Your task to perform on an android device: Search for flights from San Diego to Seattle Image 0: 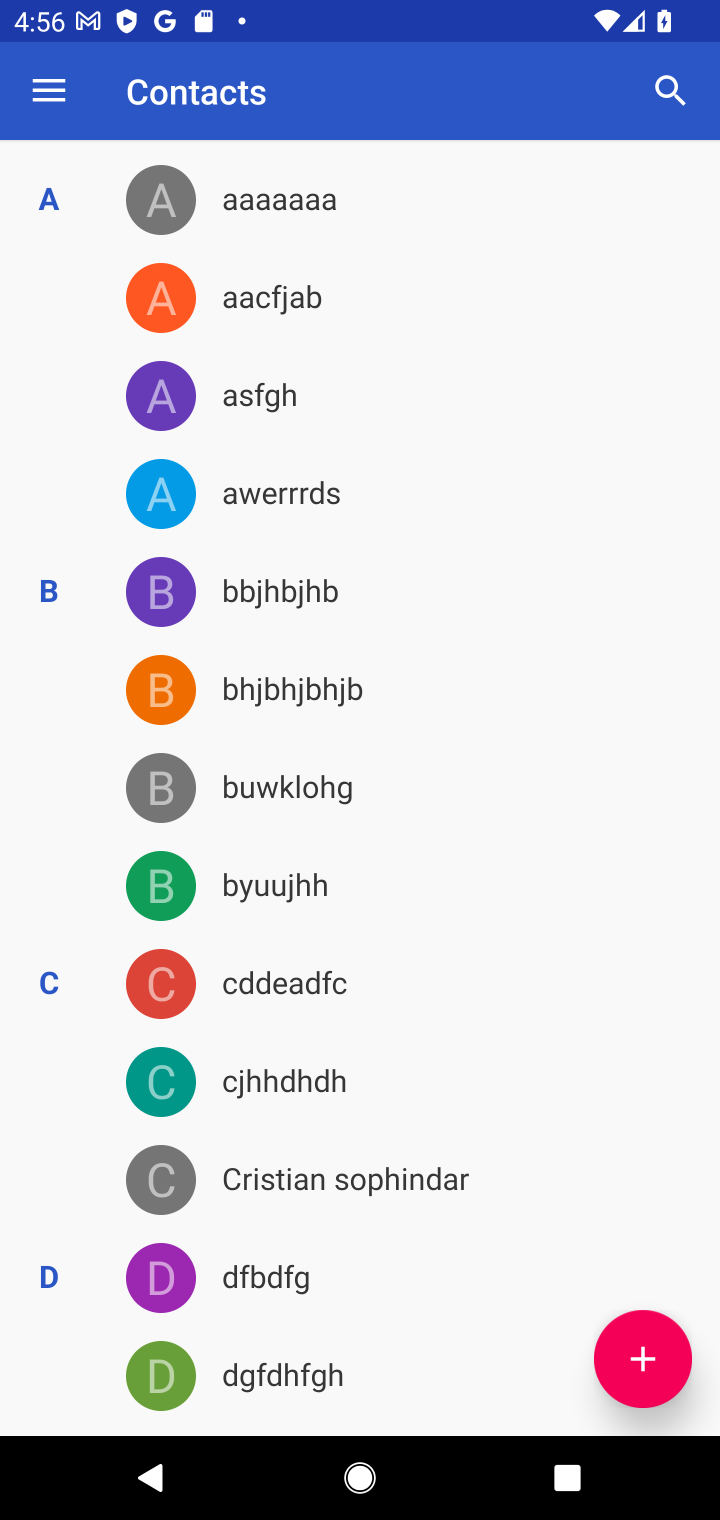
Step 0: press home button
Your task to perform on an android device: Search for flights from San Diego to Seattle Image 1: 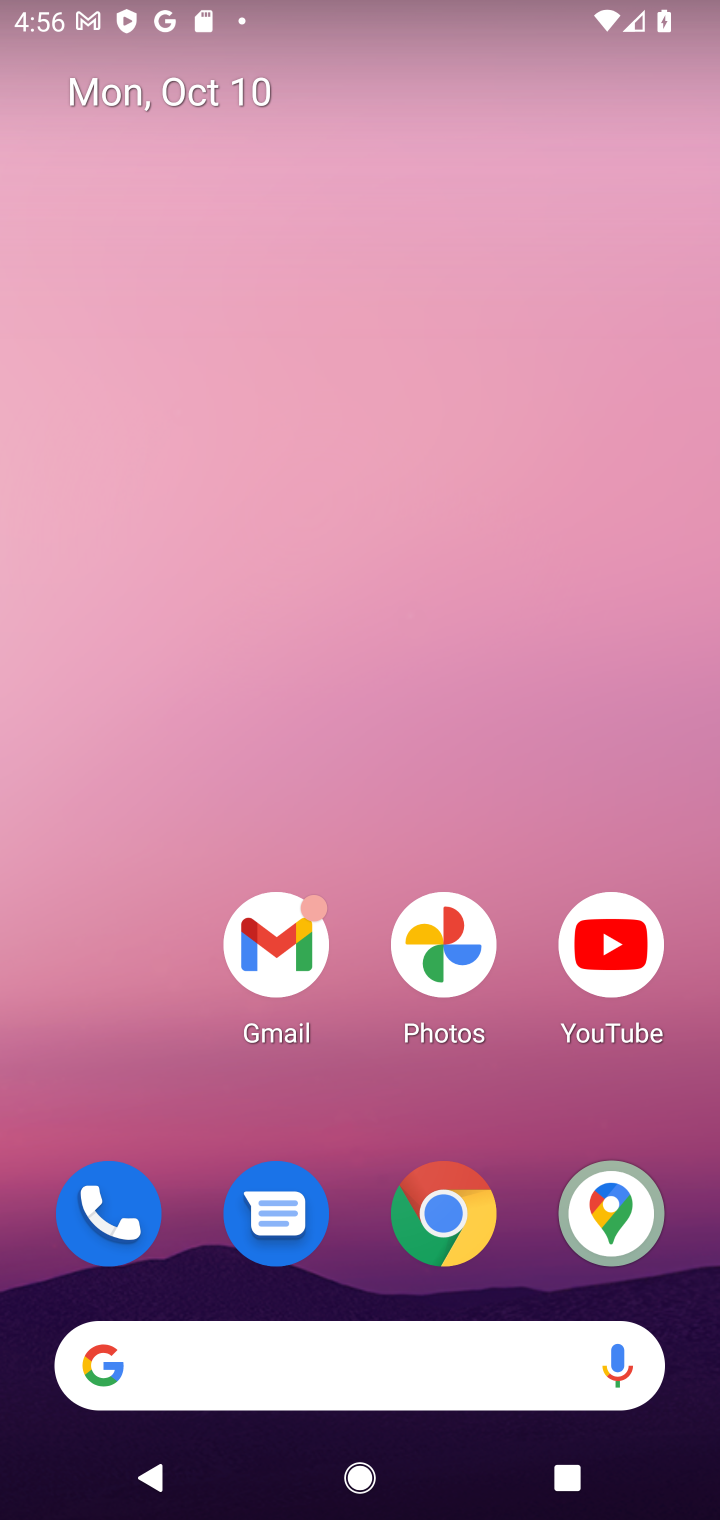
Step 1: click (308, 1374)
Your task to perform on an android device: Search for flights from San Diego to Seattle Image 2: 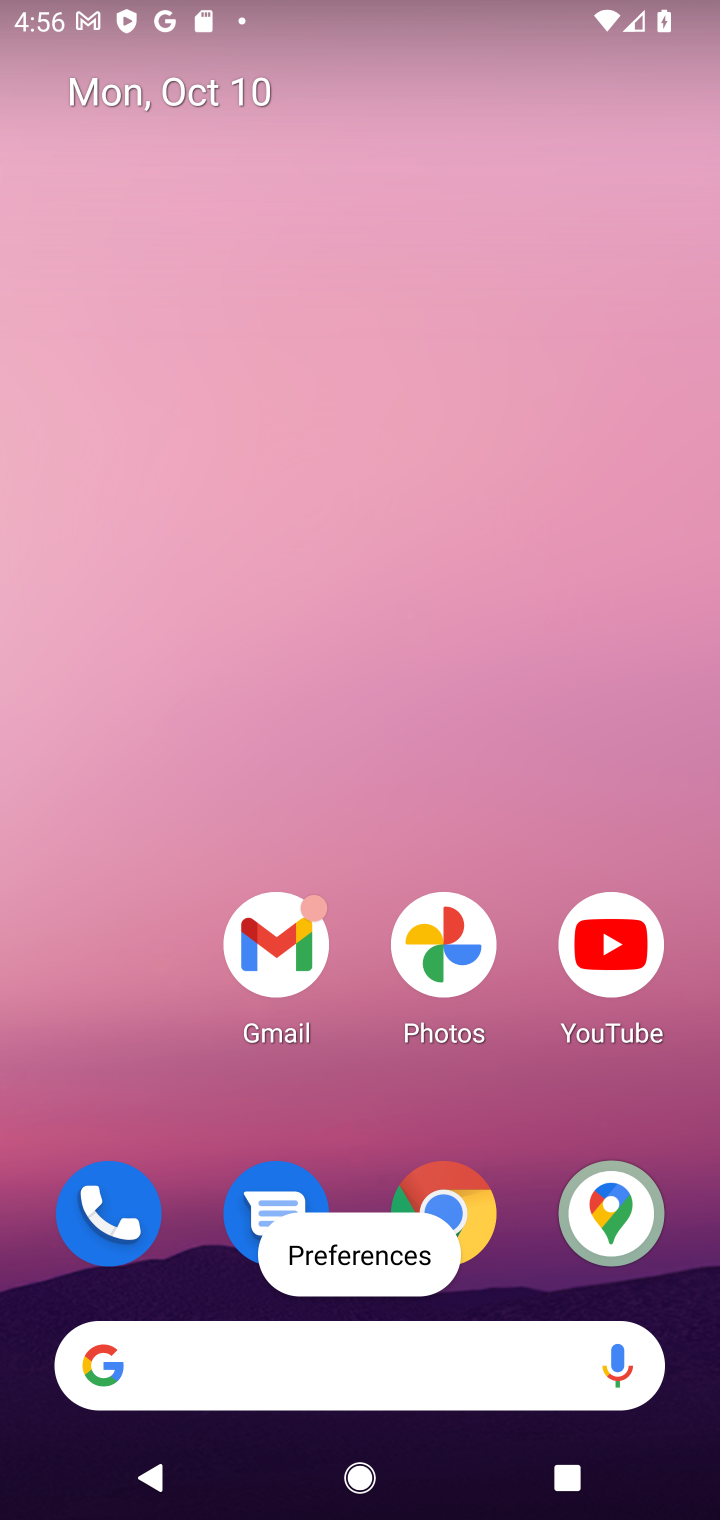
Step 2: click (342, 1370)
Your task to perform on an android device: Search for flights from San Diego to Seattle Image 3: 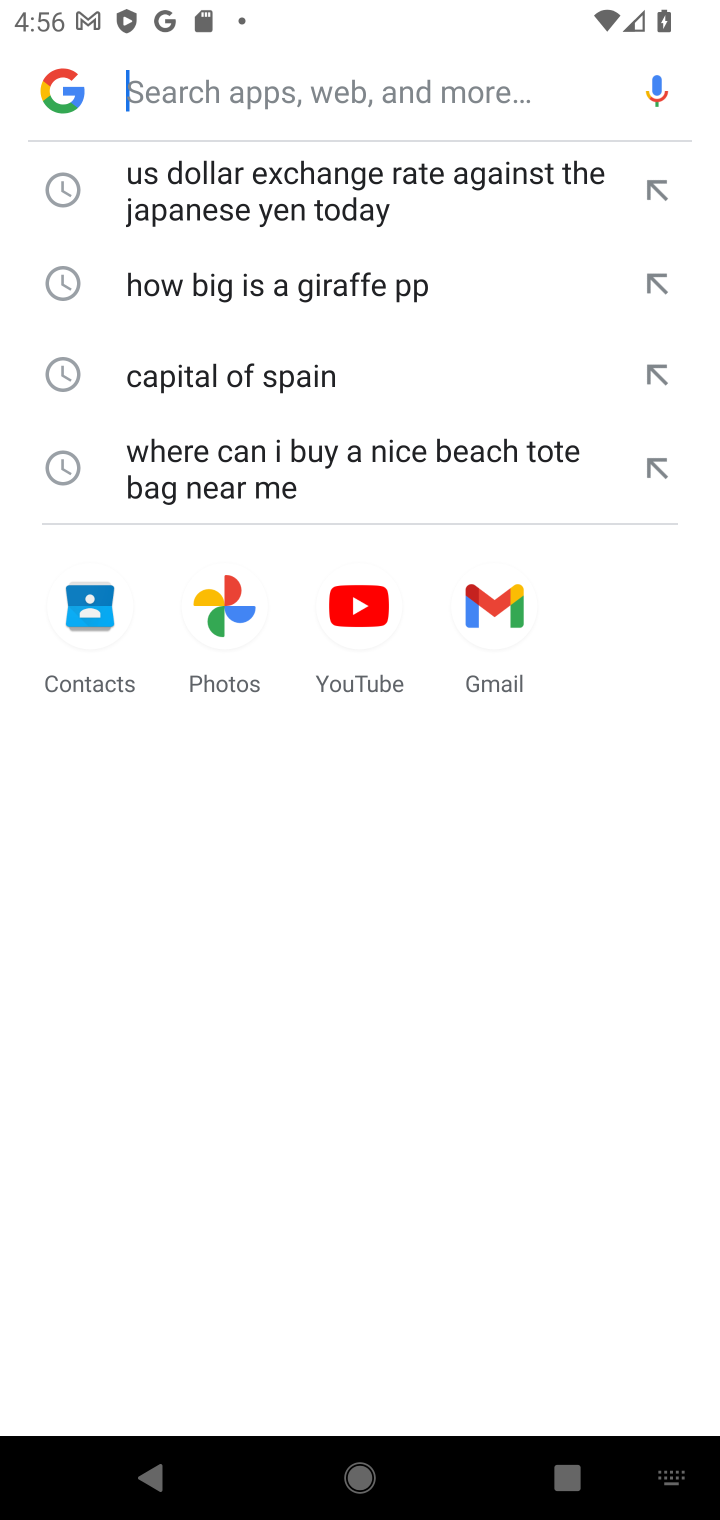
Step 3: type "flights from San Diego to Seattle"
Your task to perform on an android device: Search for flights from San Diego to Seattle Image 4: 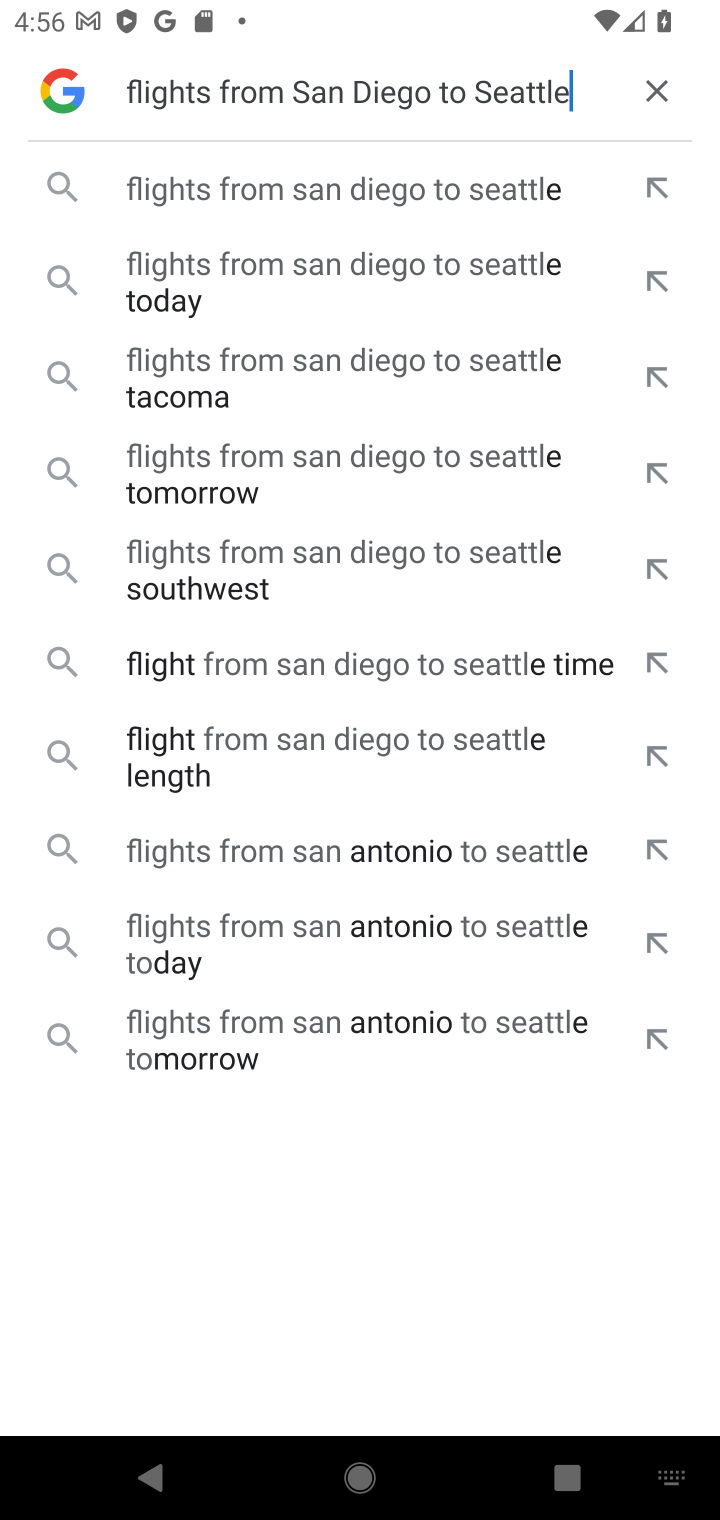
Step 4: type ""
Your task to perform on an android device: Search for flights from San Diego to Seattle Image 5: 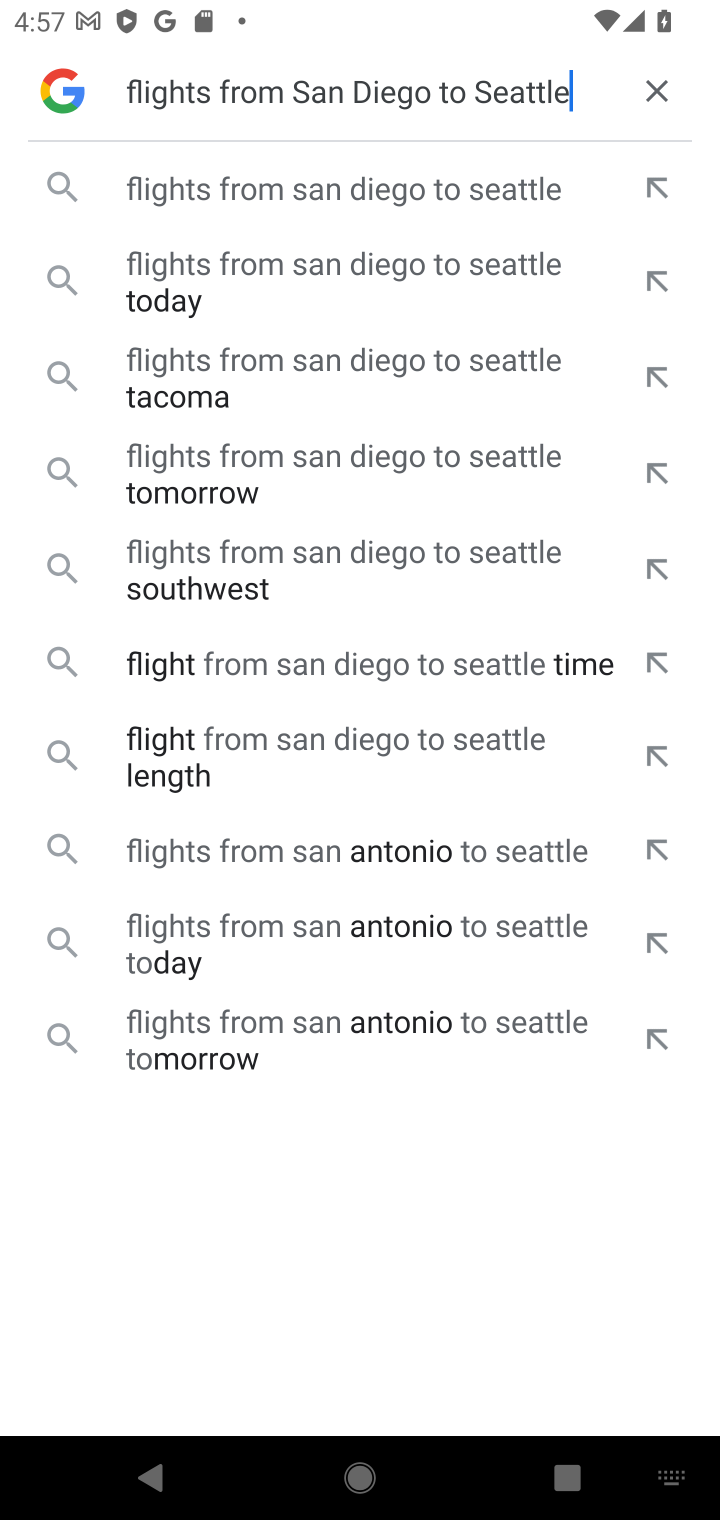
Step 5: click (403, 183)
Your task to perform on an android device: Search for flights from San Diego to Seattle Image 6: 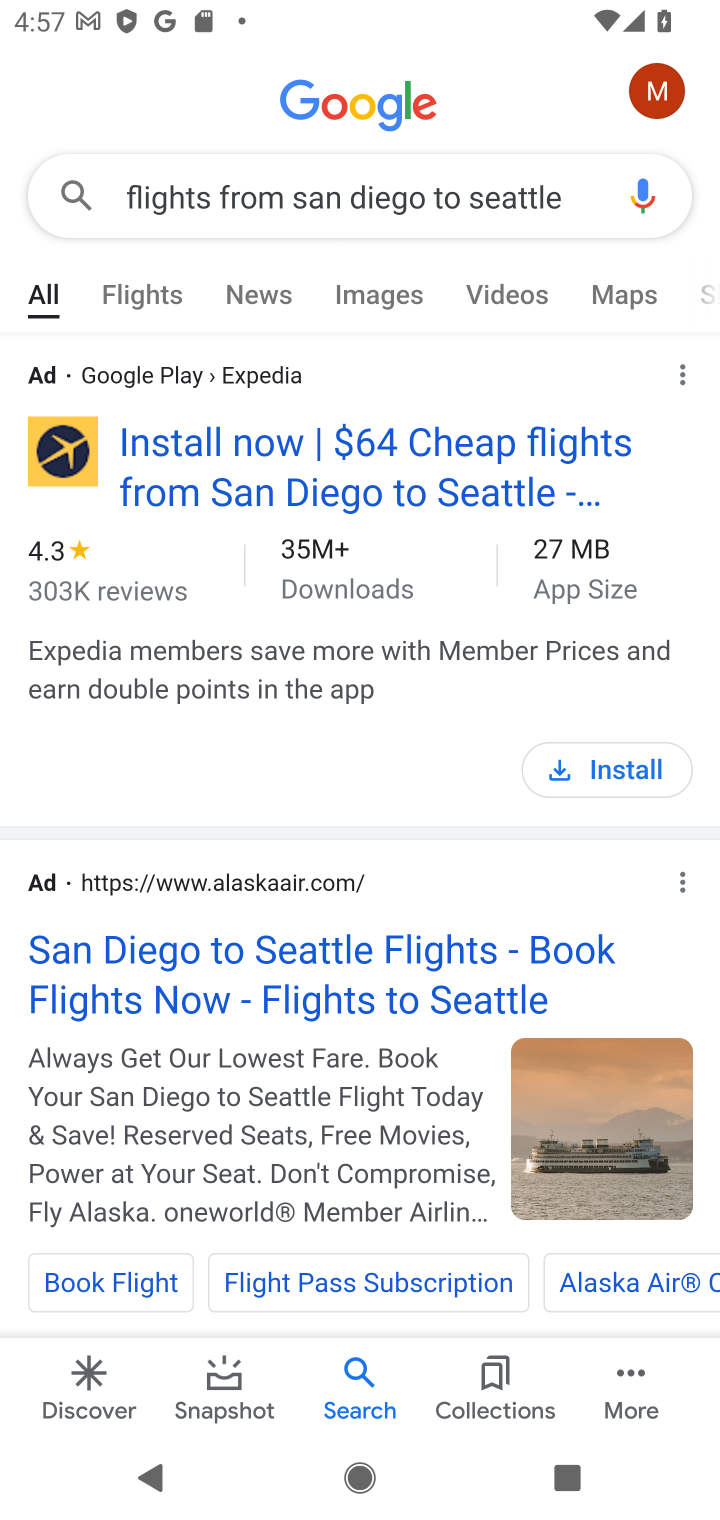
Step 6: task complete